Your task to perform on an android device: all mails in gmail Image 0: 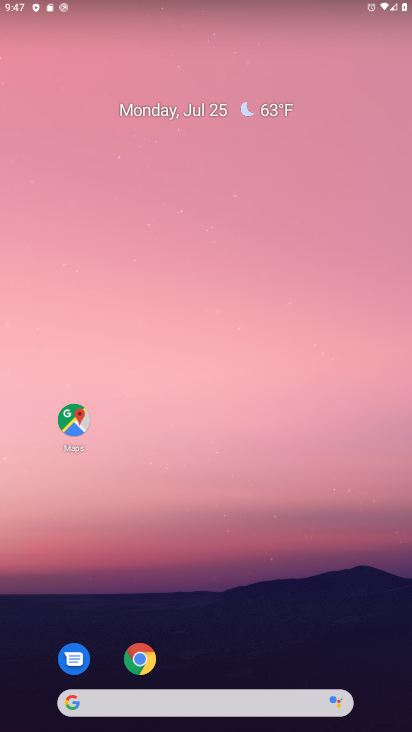
Step 0: drag from (220, 730) to (221, 107)
Your task to perform on an android device: all mails in gmail Image 1: 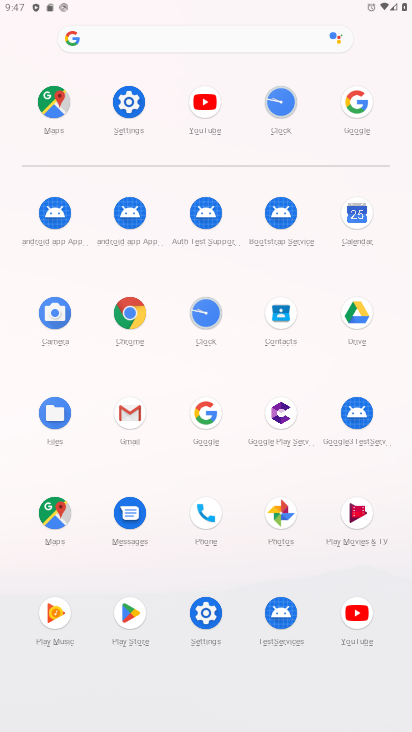
Step 1: click (129, 413)
Your task to perform on an android device: all mails in gmail Image 2: 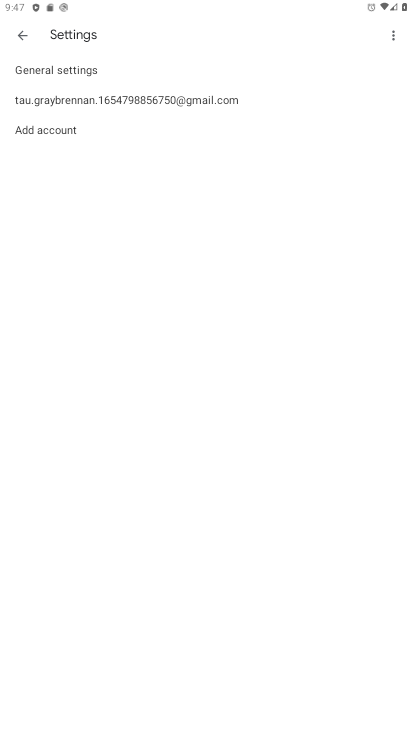
Step 2: click (21, 37)
Your task to perform on an android device: all mails in gmail Image 3: 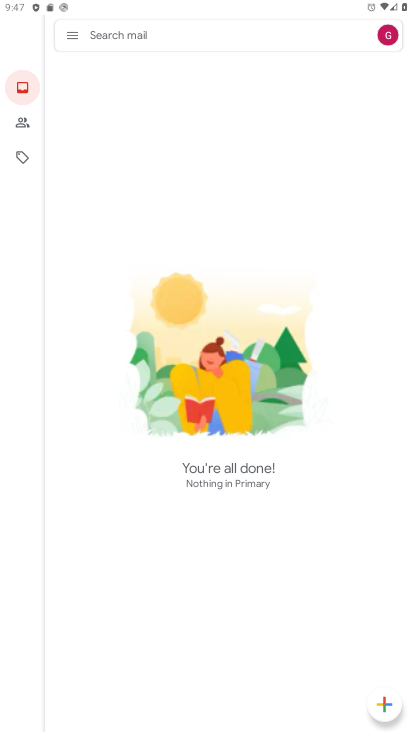
Step 3: click (70, 36)
Your task to perform on an android device: all mails in gmail Image 4: 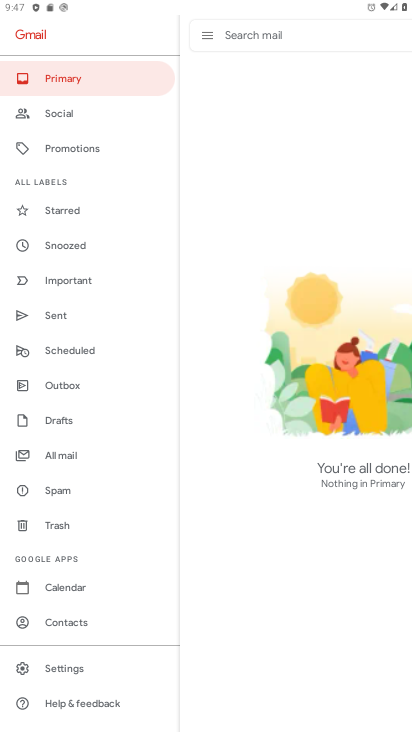
Step 4: click (61, 452)
Your task to perform on an android device: all mails in gmail Image 5: 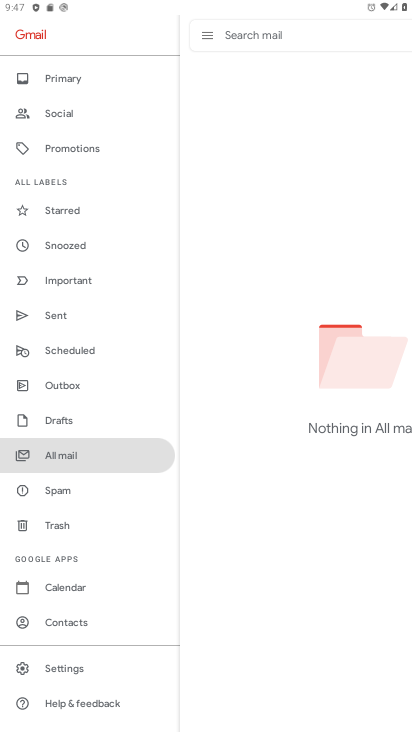
Step 5: task complete